Your task to perform on an android device: refresh tabs in the chrome app Image 0: 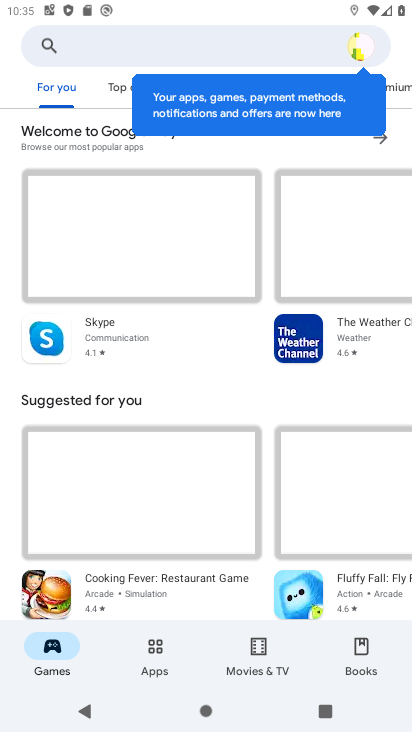
Step 0: press home button
Your task to perform on an android device: refresh tabs in the chrome app Image 1: 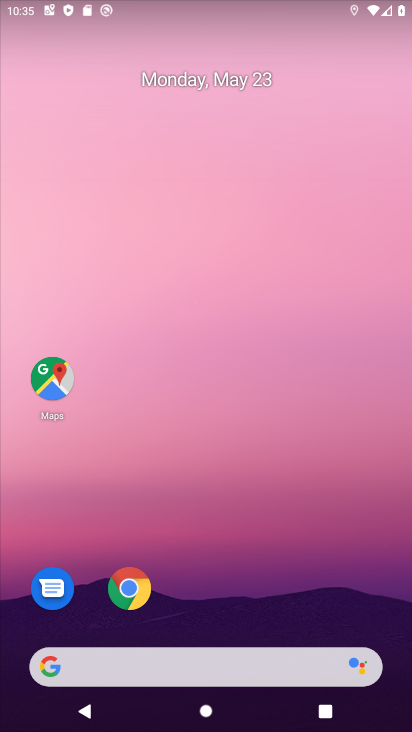
Step 1: click (127, 599)
Your task to perform on an android device: refresh tabs in the chrome app Image 2: 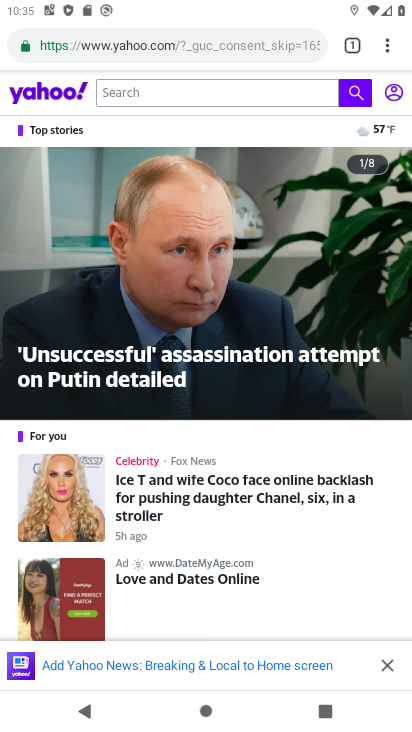
Step 2: click (389, 41)
Your task to perform on an android device: refresh tabs in the chrome app Image 3: 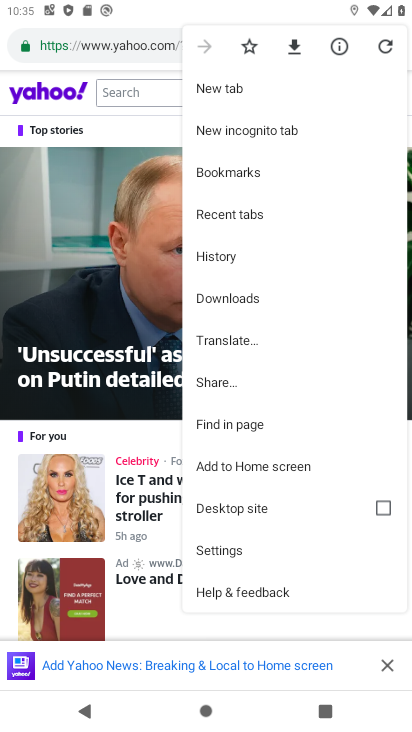
Step 3: click (387, 42)
Your task to perform on an android device: refresh tabs in the chrome app Image 4: 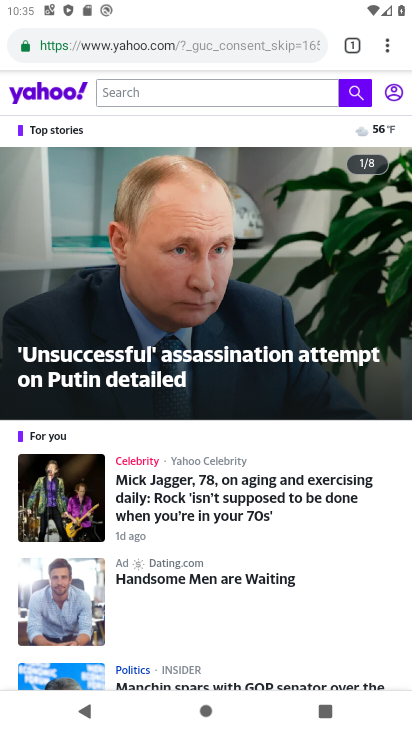
Step 4: task complete